Your task to perform on an android device: Set the phone to "Do not disturb". Image 0: 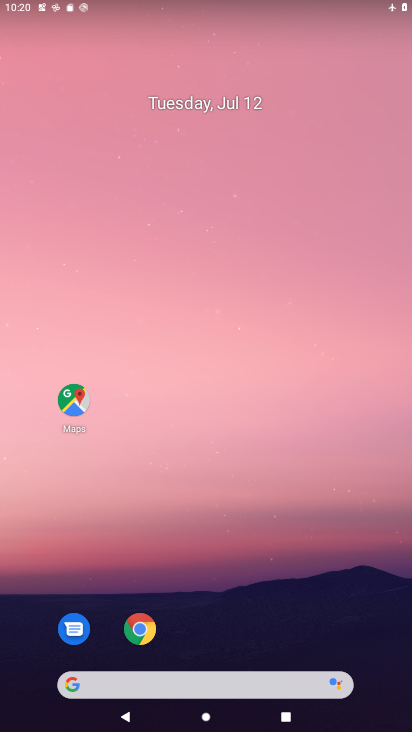
Step 0: drag from (190, 680) to (314, 116)
Your task to perform on an android device: Set the phone to "Do not disturb". Image 1: 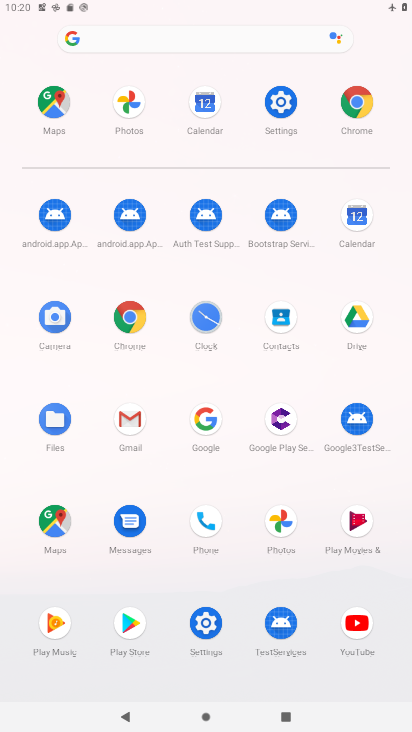
Step 1: click (281, 108)
Your task to perform on an android device: Set the phone to "Do not disturb". Image 2: 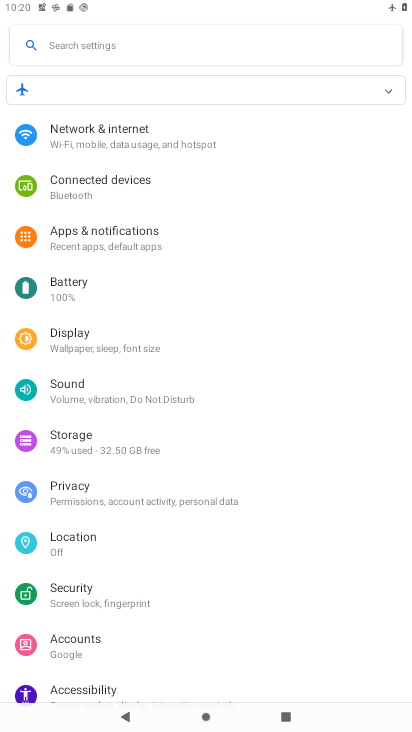
Step 2: click (117, 390)
Your task to perform on an android device: Set the phone to "Do not disturb". Image 3: 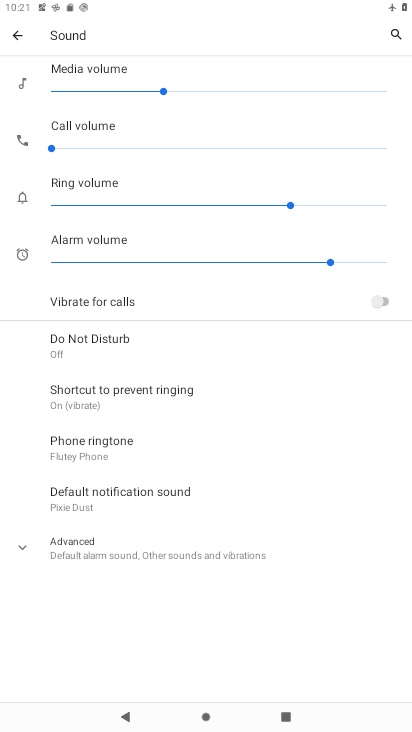
Step 3: click (120, 344)
Your task to perform on an android device: Set the phone to "Do not disturb". Image 4: 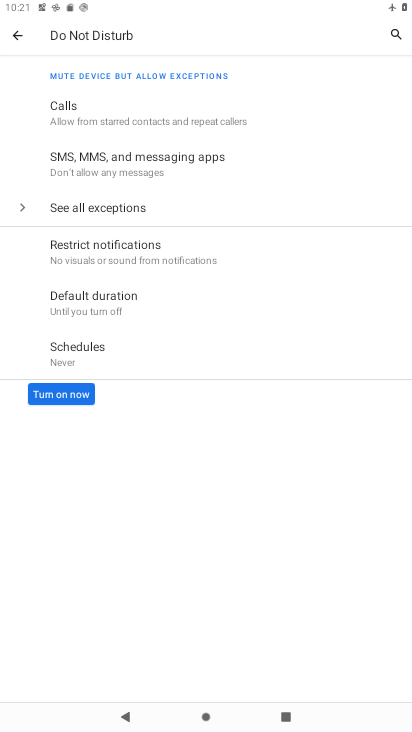
Step 4: click (74, 395)
Your task to perform on an android device: Set the phone to "Do not disturb". Image 5: 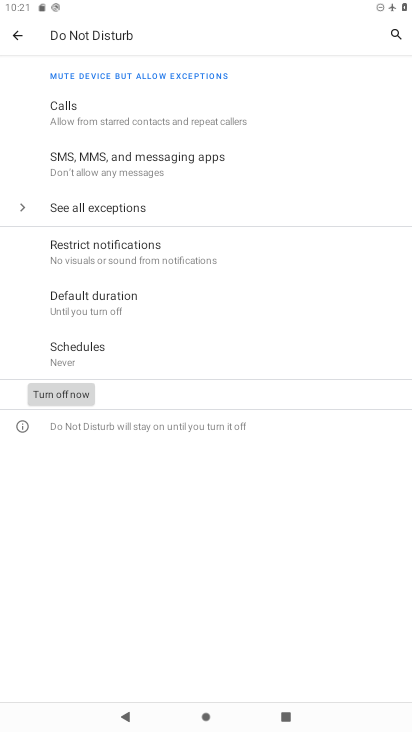
Step 5: task complete